Your task to perform on an android device: Open settings Image 0: 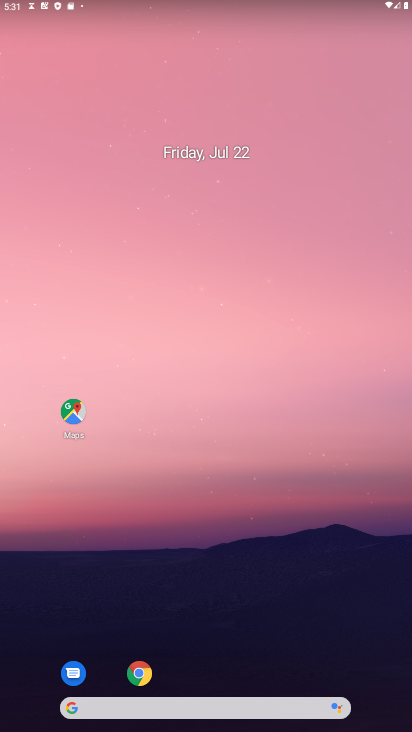
Step 0: press home button
Your task to perform on an android device: Open settings Image 1: 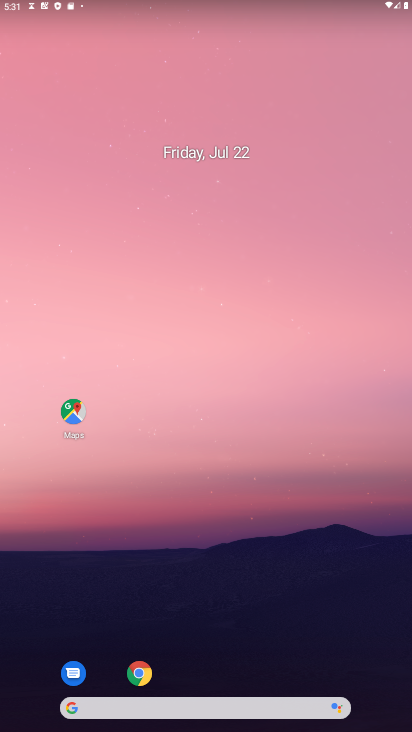
Step 1: drag from (254, 670) to (312, 123)
Your task to perform on an android device: Open settings Image 2: 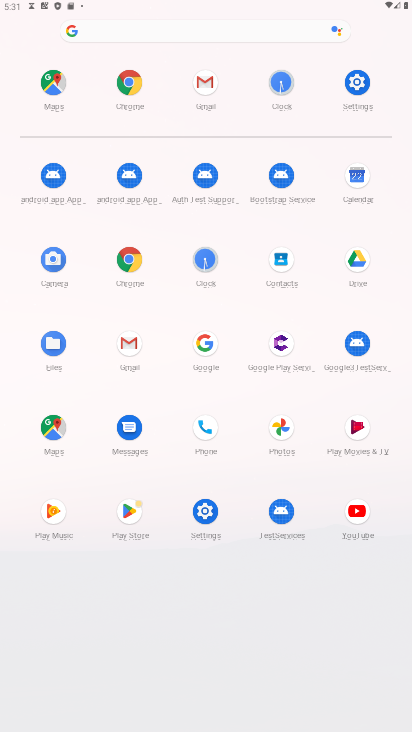
Step 2: click (358, 86)
Your task to perform on an android device: Open settings Image 3: 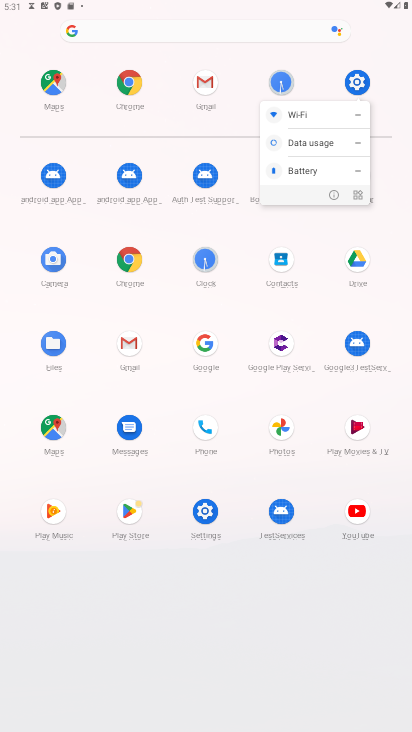
Step 3: click (358, 86)
Your task to perform on an android device: Open settings Image 4: 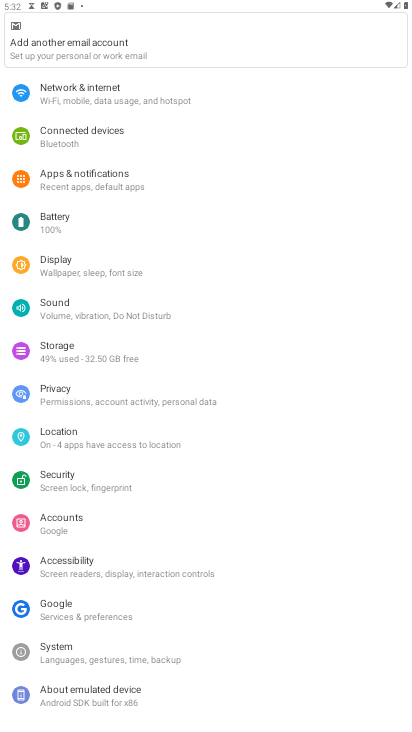
Step 4: task complete